Your task to perform on an android device: Go to accessibility settings Image 0: 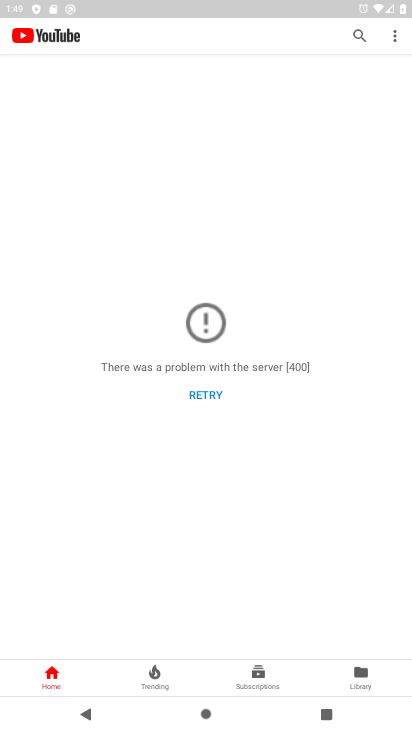
Step 0: press home button
Your task to perform on an android device: Go to accessibility settings Image 1: 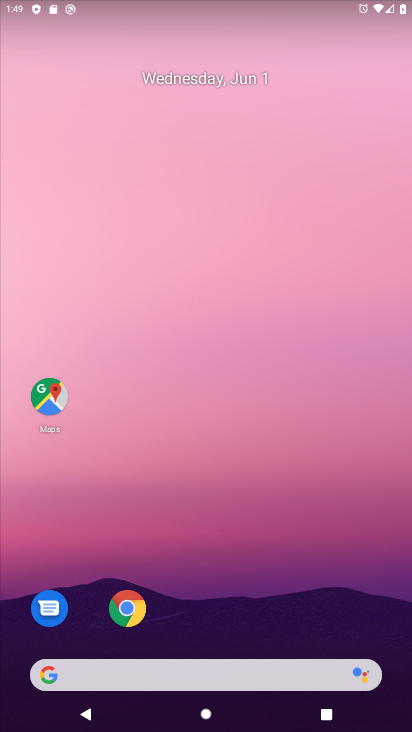
Step 1: drag from (141, 640) to (246, 100)
Your task to perform on an android device: Go to accessibility settings Image 2: 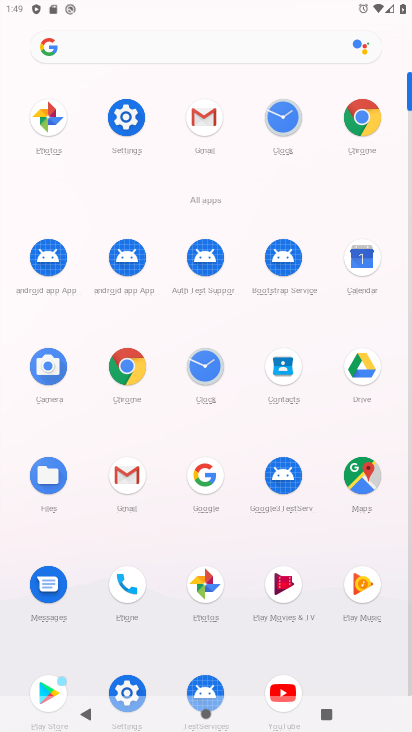
Step 2: drag from (170, 652) to (221, 486)
Your task to perform on an android device: Go to accessibility settings Image 3: 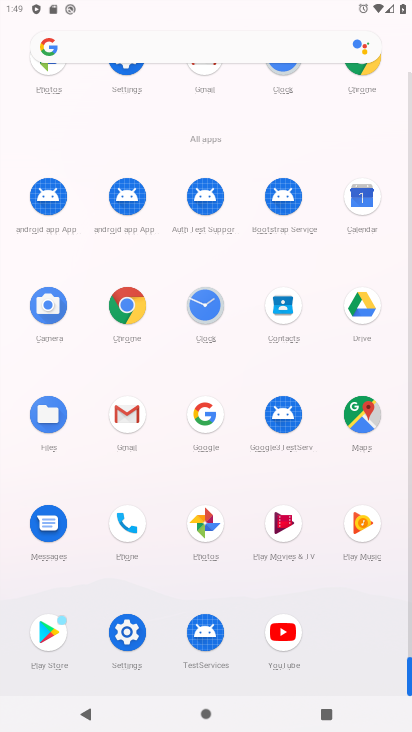
Step 3: click (135, 632)
Your task to perform on an android device: Go to accessibility settings Image 4: 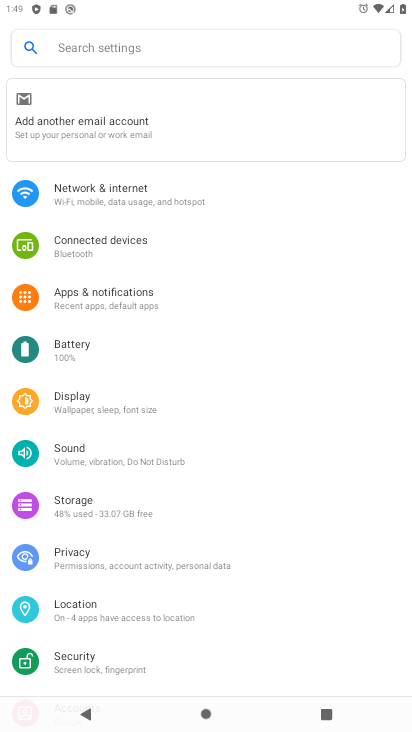
Step 4: drag from (146, 605) to (296, 145)
Your task to perform on an android device: Go to accessibility settings Image 5: 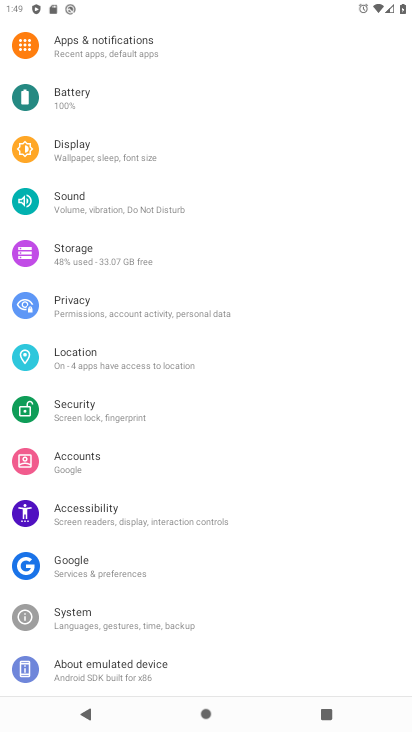
Step 5: click (136, 504)
Your task to perform on an android device: Go to accessibility settings Image 6: 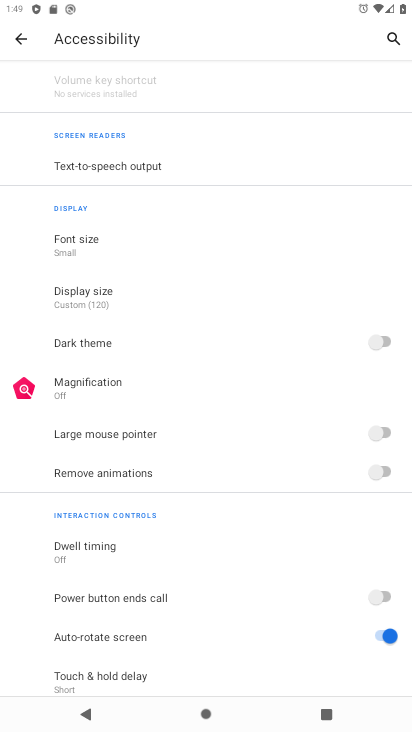
Step 6: task complete